Your task to perform on an android device: see creations saved in the google photos Image 0: 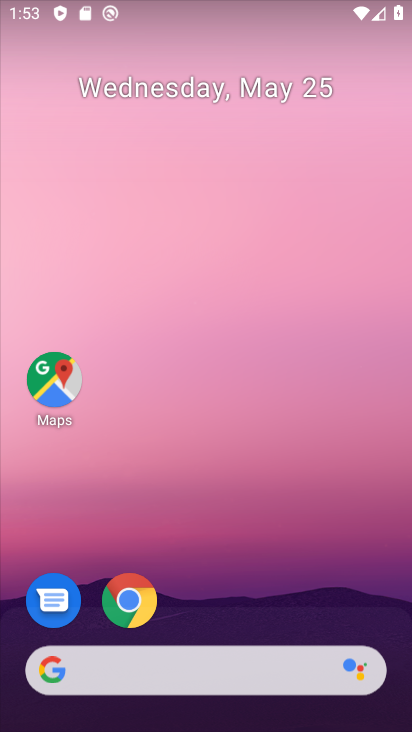
Step 0: drag from (231, 623) to (341, 160)
Your task to perform on an android device: see creations saved in the google photos Image 1: 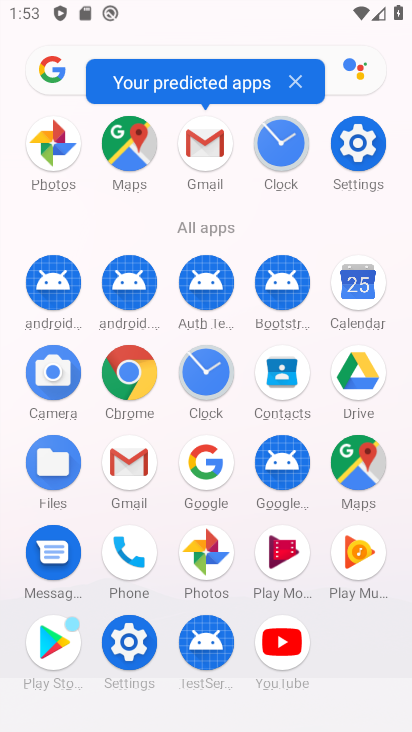
Step 1: click (216, 553)
Your task to perform on an android device: see creations saved in the google photos Image 2: 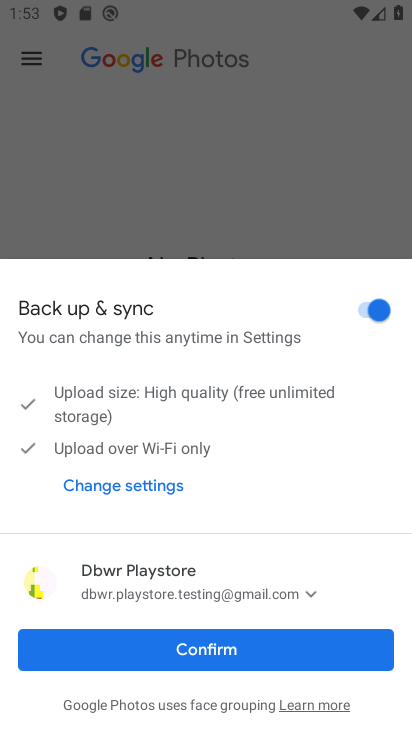
Step 2: click (237, 652)
Your task to perform on an android device: see creations saved in the google photos Image 3: 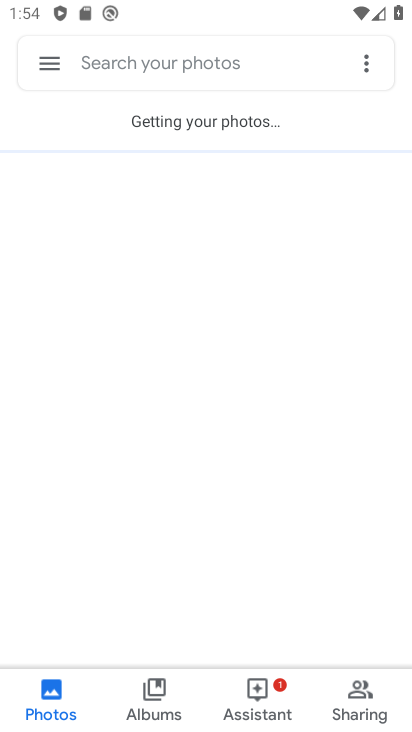
Step 3: click (235, 716)
Your task to perform on an android device: see creations saved in the google photos Image 4: 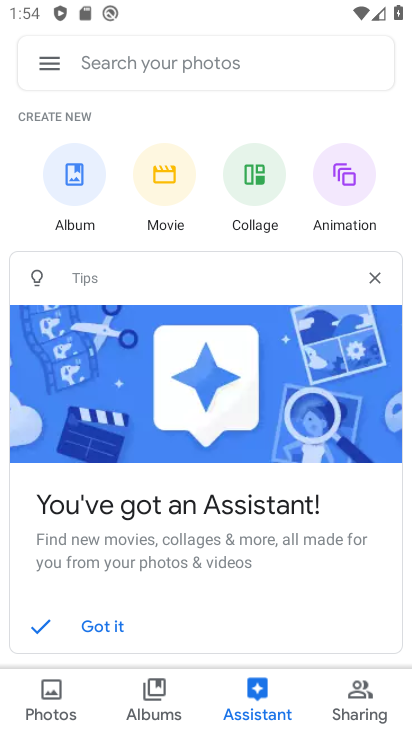
Step 4: task complete